Your task to perform on an android device: Add "amazon basics triple a" to the cart on amazon Image 0: 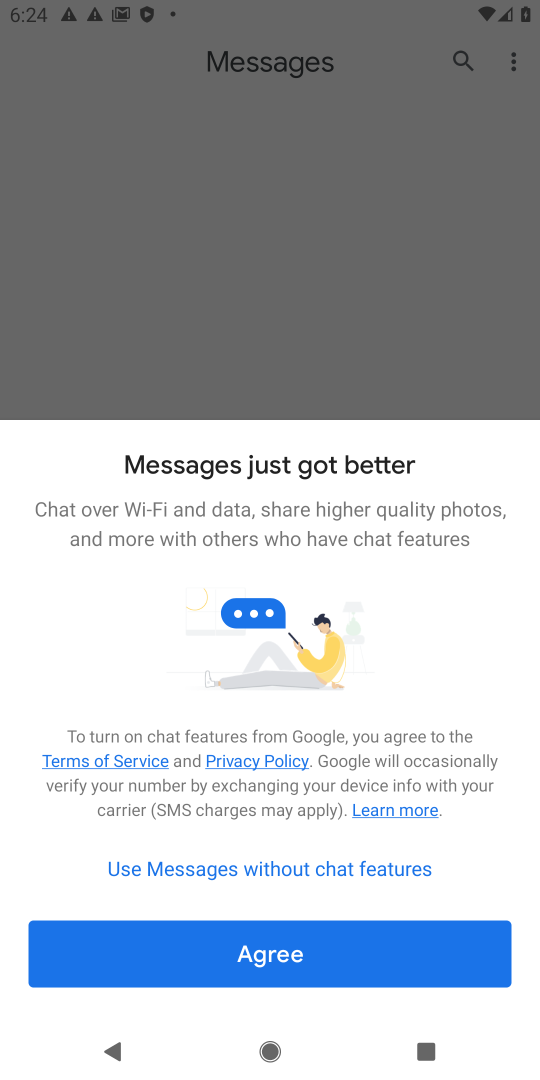
Step 0: press home button
Your task to perform on an android device: Add "amazon basics triple a" to the cart on amazon Image 1: 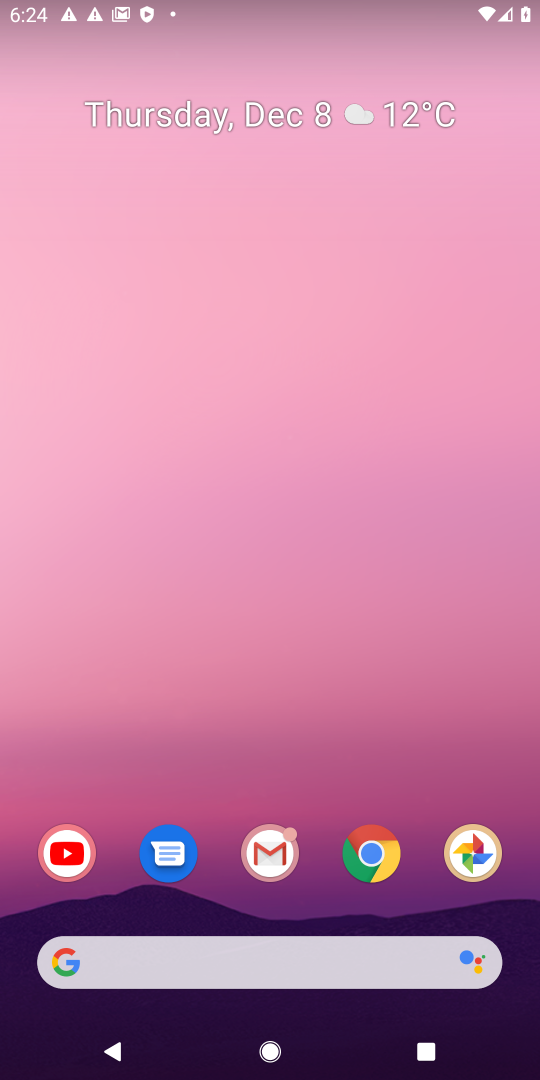
Step 1: click (158, 955)
Your task to perform on an android device: Add "amazon basics triple a" to the cart on amazon Image 2: 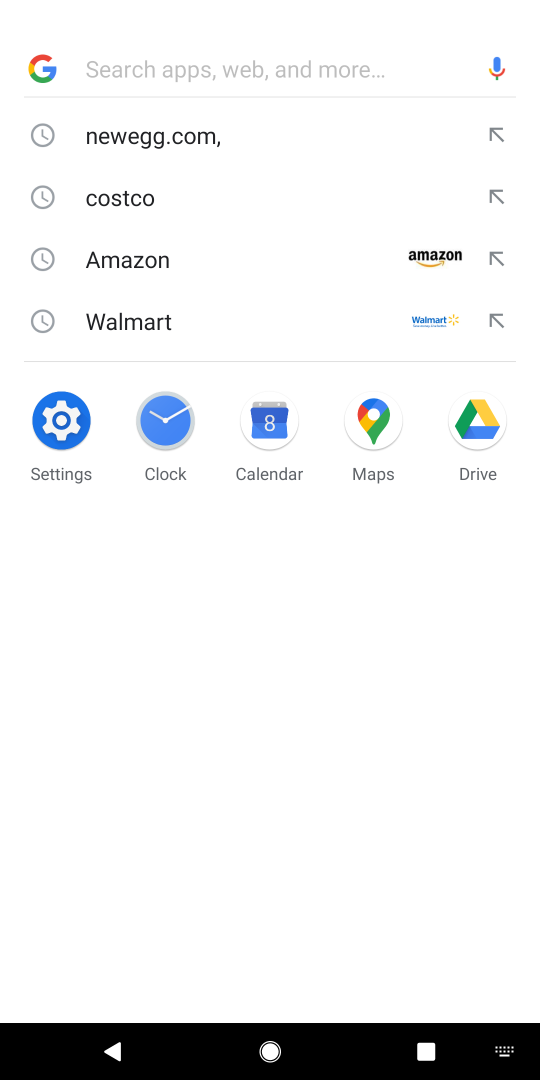
Step 2: click (134, 262)
Your task to perform on an android device: Add "amazon basics triple a" to the cart on amazon Image 3: 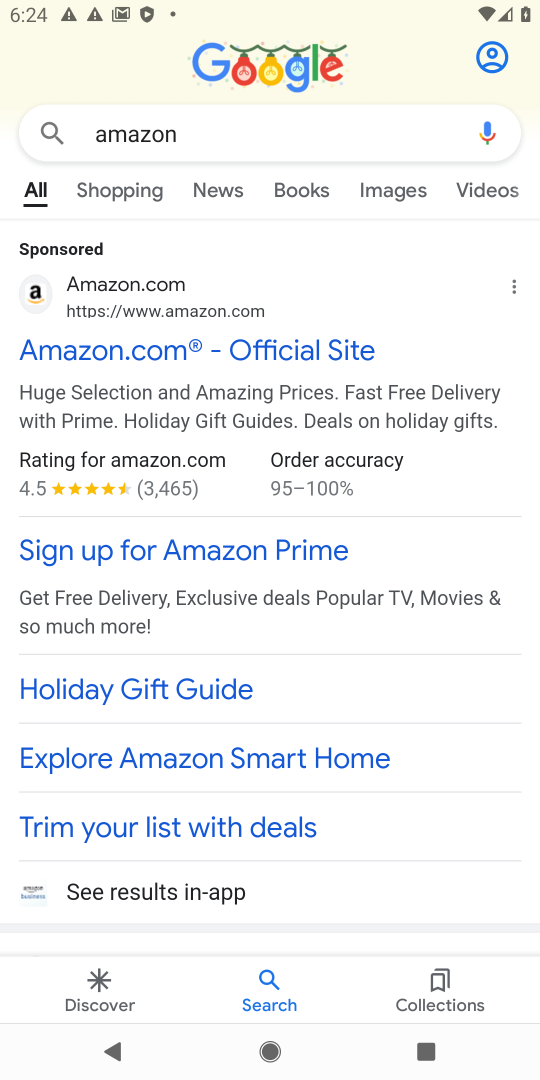
Step 3: click (102, 348)
Your task to perform on an android device: Add "amazon basics triple a" to the cart on amazon Image 4: 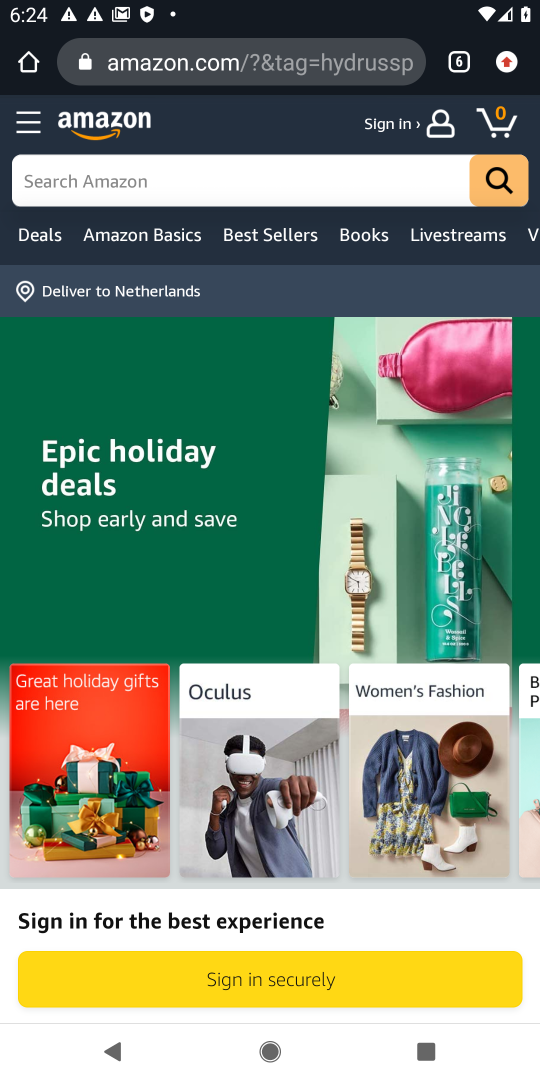
Step 4: click (157, 180)
Your task to perform on an android device: Add "amazon basics triple a" to the cart on amazon Image 5: 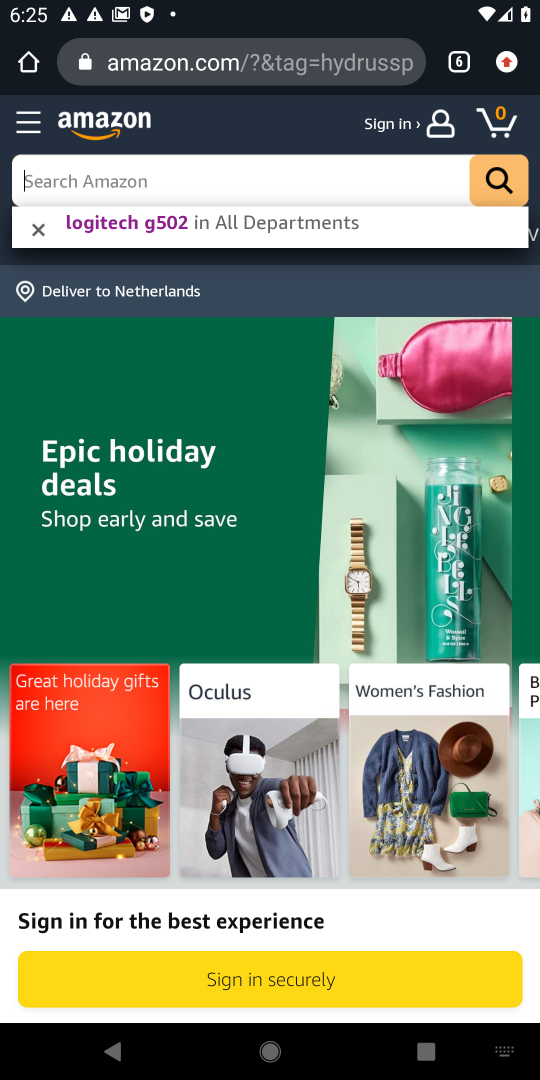
Step 5: type "amazon basics triple a"
Your task to perform on an android device: Add "amazon basics triple a" to the cart on amazon Image 6: 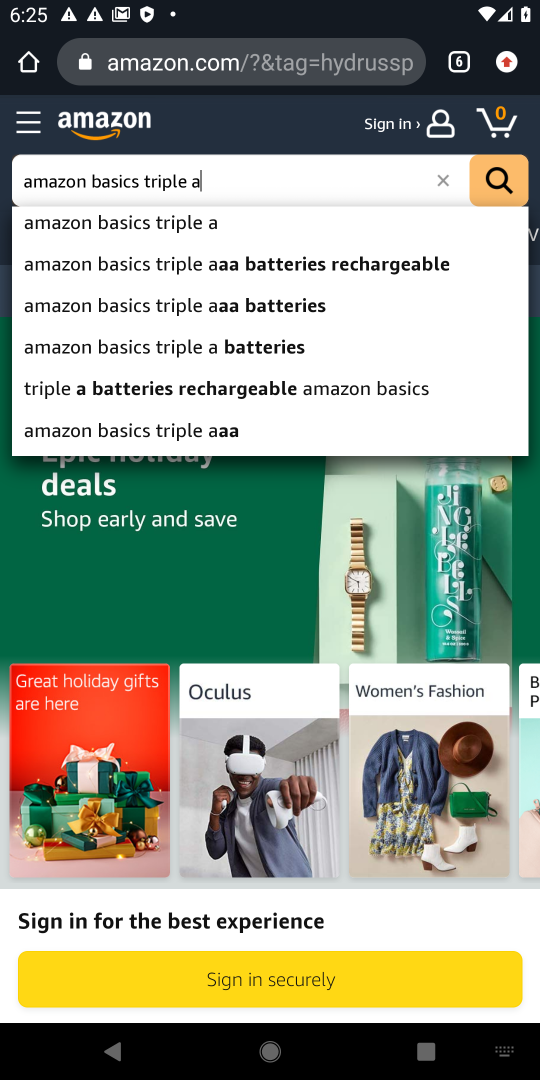
Step 6: click (151, 217)
Your task to perform on an android device: Add "amazon basics triple a" to the cart on amazon Image 7: 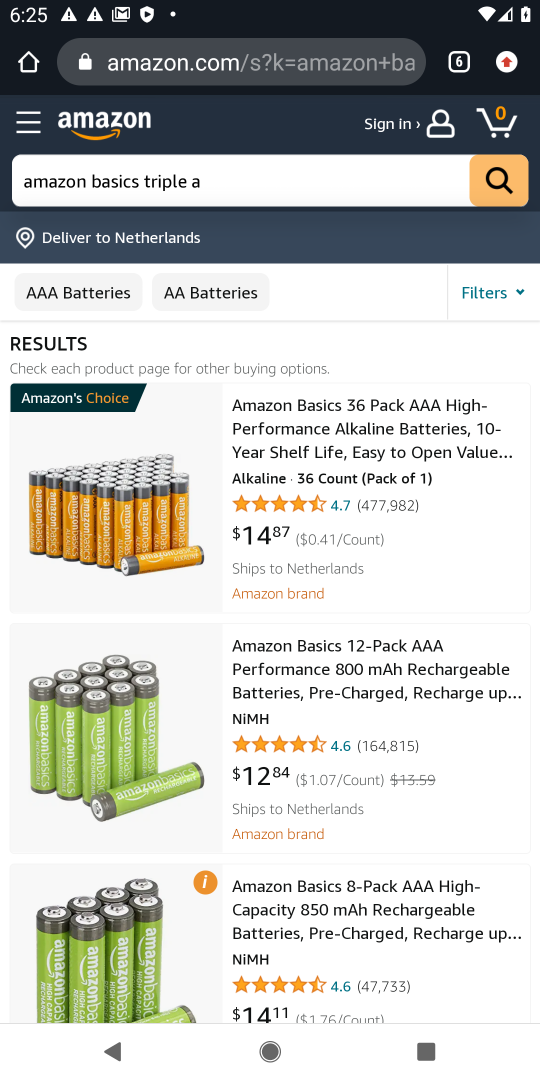
Step 7: click (340, 457)
Your task to perform on an android device: Add "amazon basics triple a" to the cart on amazon Image 8: 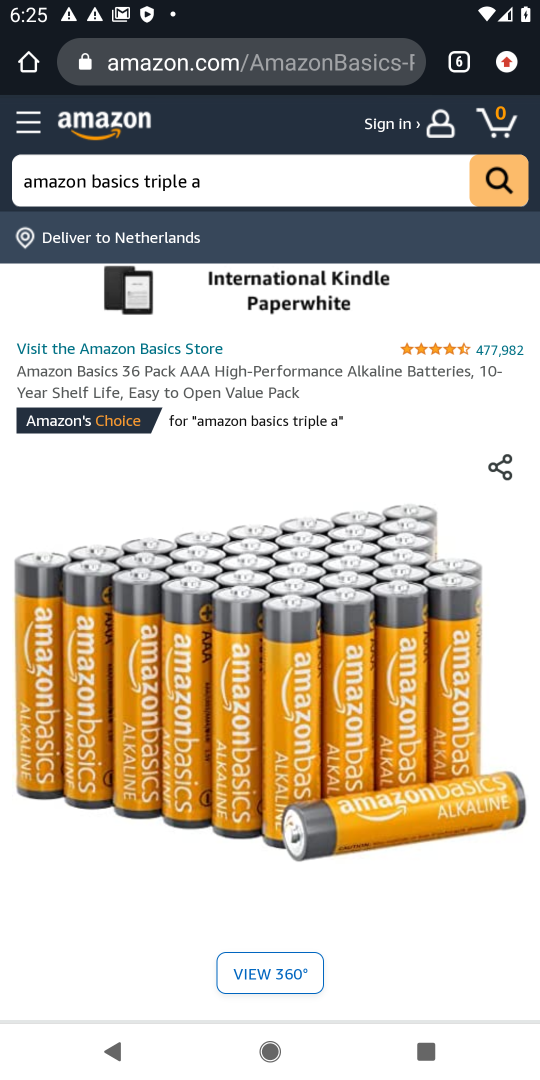
Step 8: drag from (378, 881) to (369, 568)
Your task to perform on an android device: Add "amazon basics triple a" to the cart on amazon Image 9: 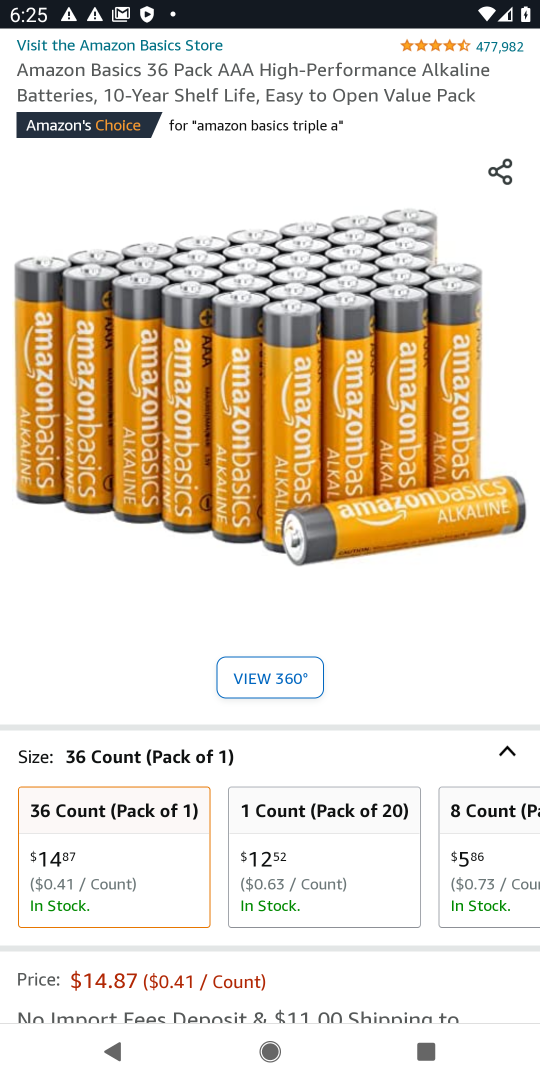
Step 9: drag from (369, 601) to (329, 241)
Your task to perform on an android device: Add "amazon basics triple a" to the cart on amazon Image 10: 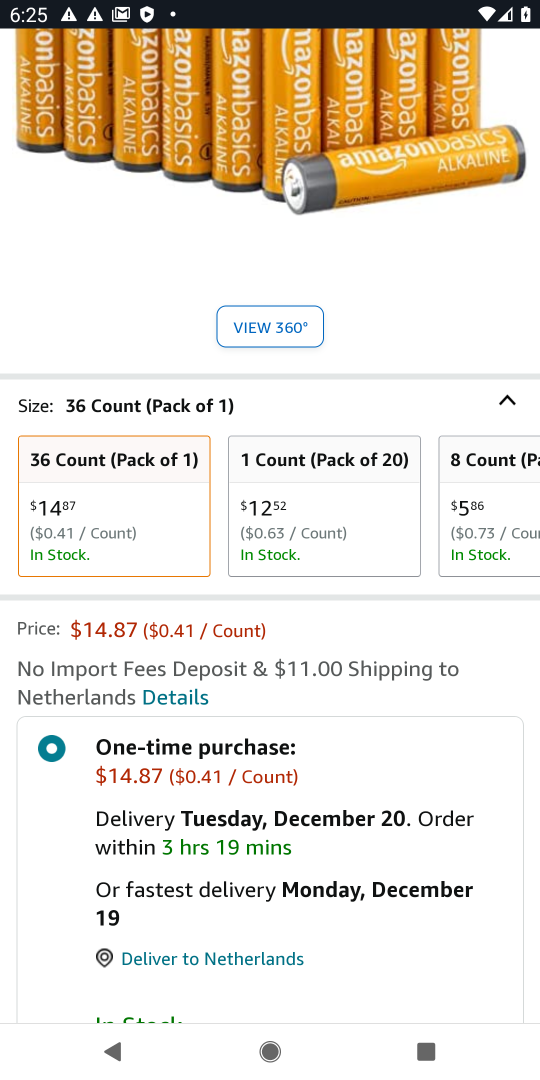
Step 10: drag from (341, 750) to (318, 425)
Your task to perform on an android device: Add "amazon basics triple a" to the cart on amazon Image 11: 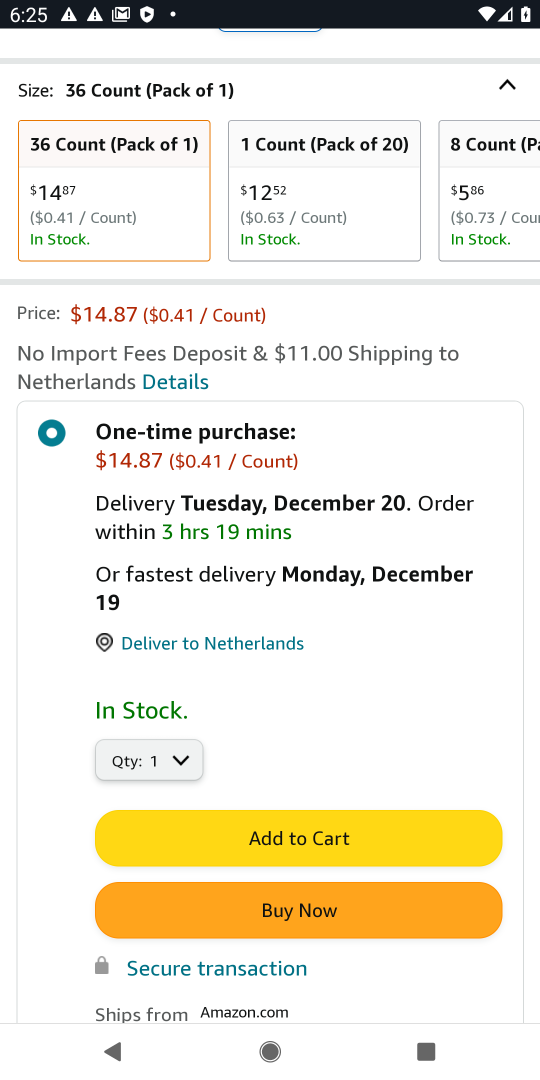
Step 11: click (272, 837)
Your task to perform on an android device: Add "amazon basics triple a" to the cart on amazon Image 12: 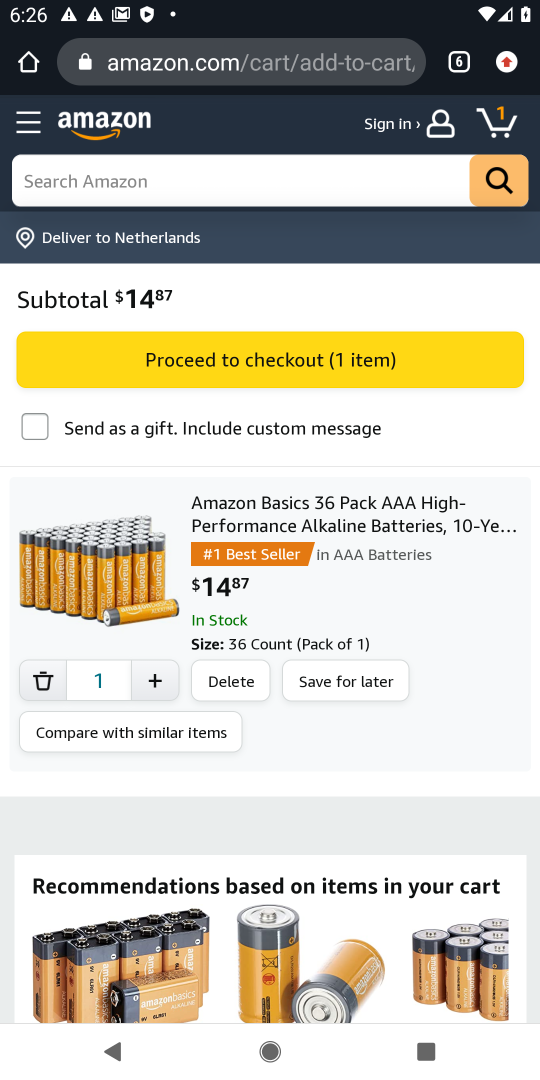
Step 12: task complete